Your task to perform on an android device: turn on sleep mode Image 0: 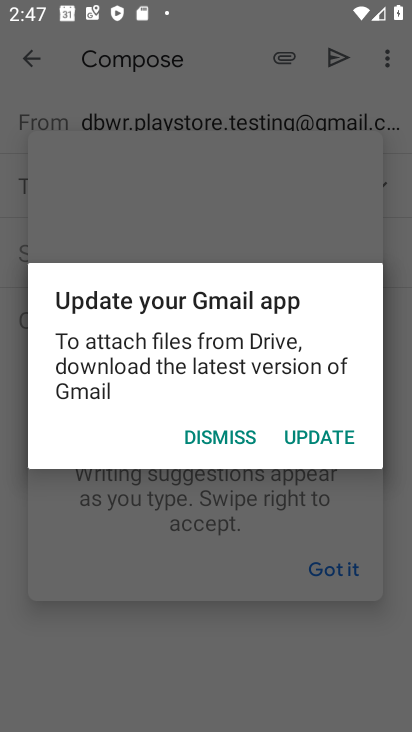
Step 0: press home button
Your task to perform on an android device: turn on sleep mode Image 1: 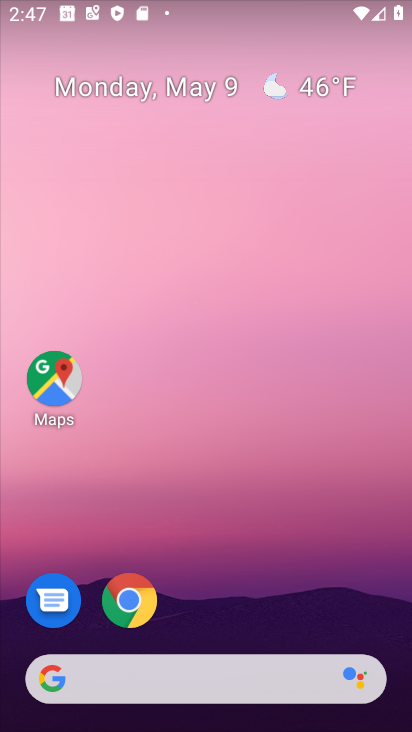
Step 1: drag from (236, 639) to (296, 176)
Your task to perform on an android device: turn on sleep mode Image 2: 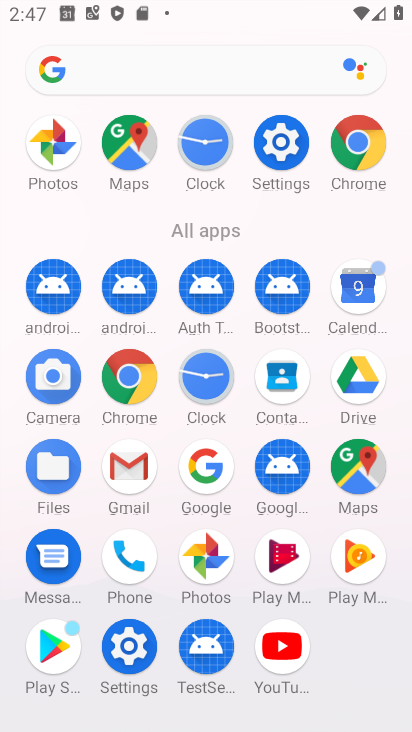
Step 2: click (123, 640)
Your task to perform on an android device: turn on sleep mode Image 3: 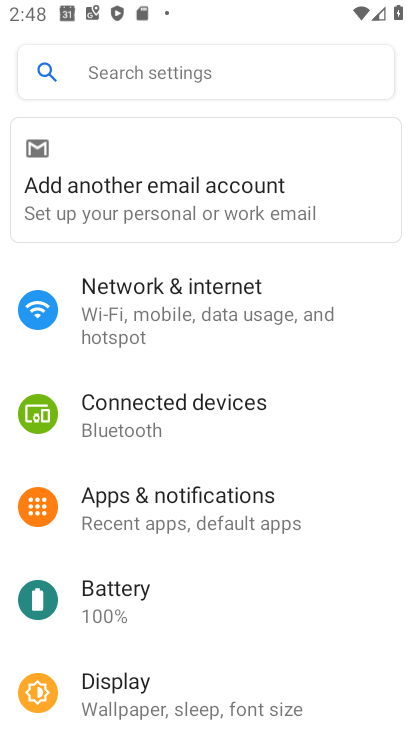
Step 3: drag from (142, 640) to (275, 327)
Your task to perform on an android device: turn on sleep mode Image 4: 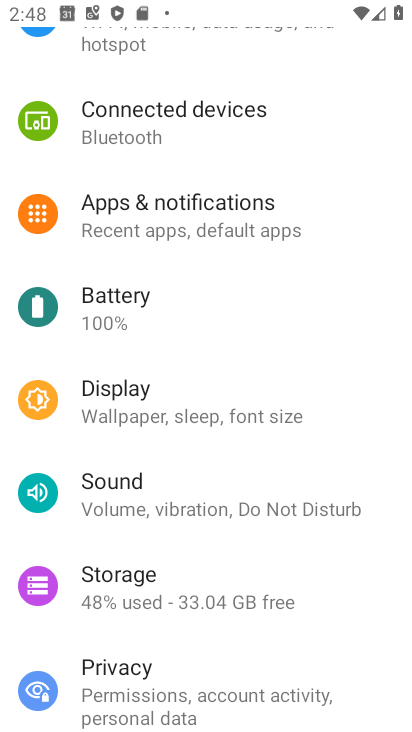
Step 4: click (187, 412)
Your task to perform on an android device: turn on sleep mode Image 5: 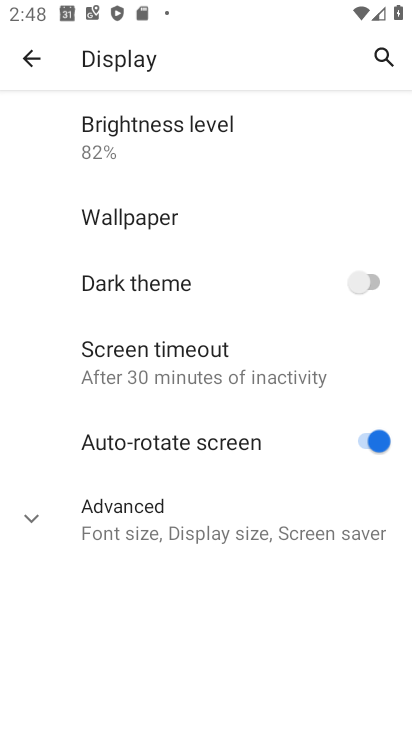
Step 5: click (124, 509)
Your task to perform on an android device: turn on sleep mode Image 6: 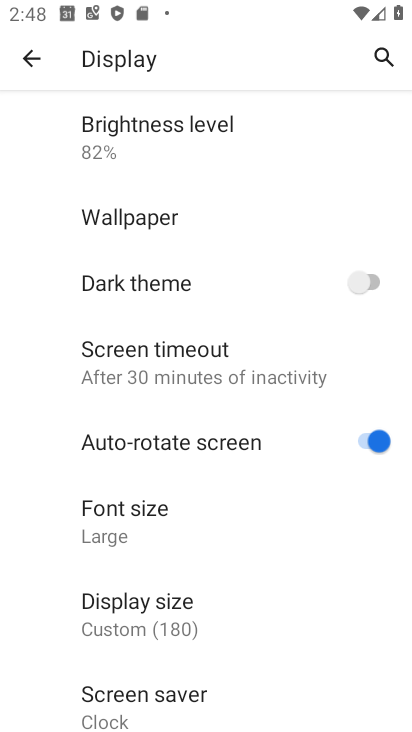
Step 6: task complete